Your task to perform on an android device: Show me productivity apps on the Play Store Image 0: 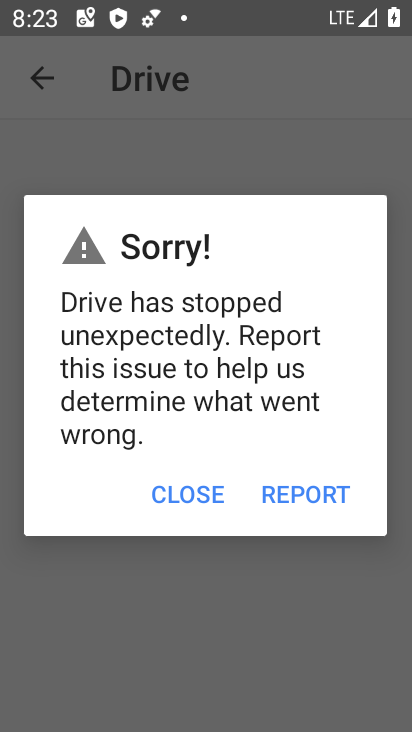
Step 0: press home button
Your task to perform on an android device: Show me productivity apps on the Play Store Image 1: 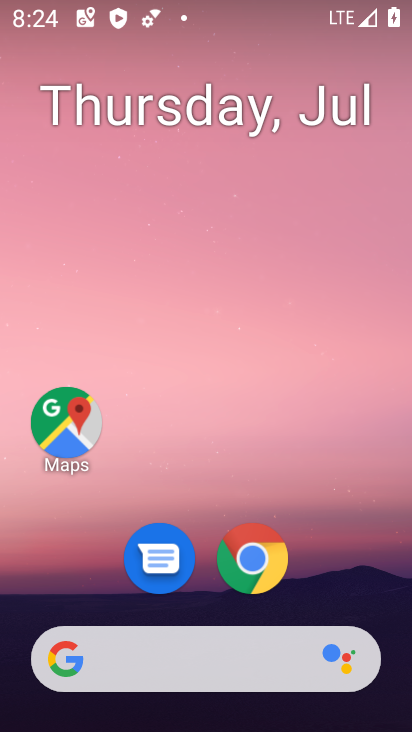
Step 1: drag from (231, 506) to (338, 55)
Your task to perform on an android device: Show me productivity apps on the Play Store Image 2: 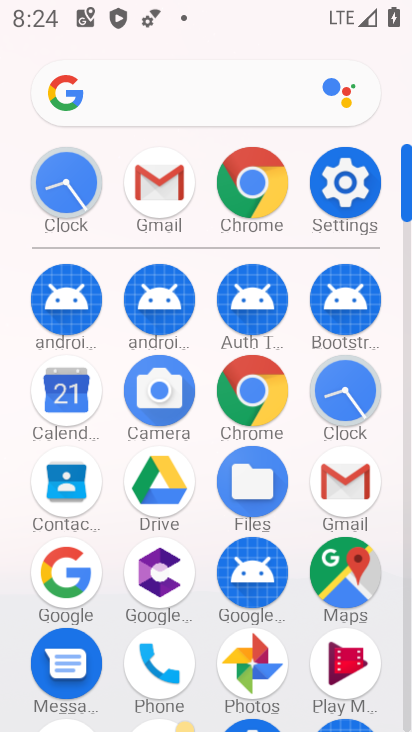
Step 2: drag from (288, 503) to (303, 172)
Your task to perform on an android device: Show me productivity apps on the Play Store Image 3: 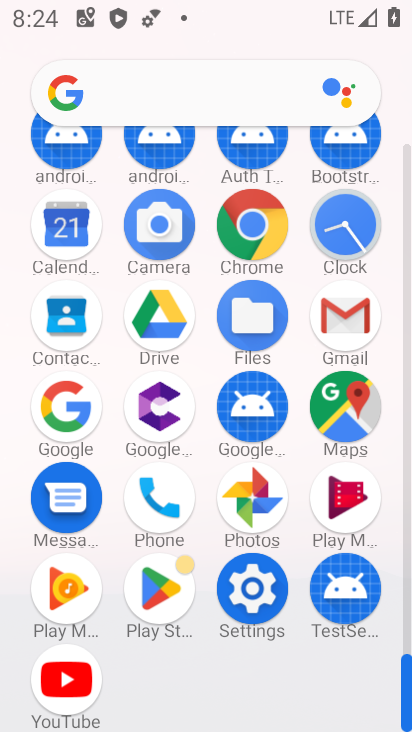
Step 3: click (157, 607)
Your task to perform on an android device: Show me productivity apps on the Play Store Image 4: 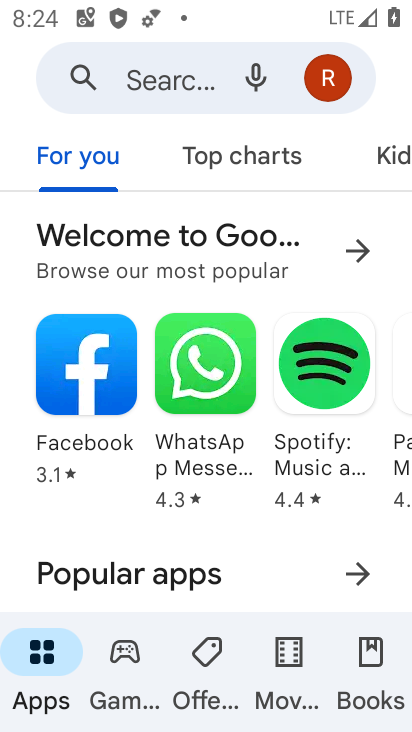
Step 4: click (207, 86)
Your task to perform on an android device: Show me productivity apps on the Play Store Image 5: 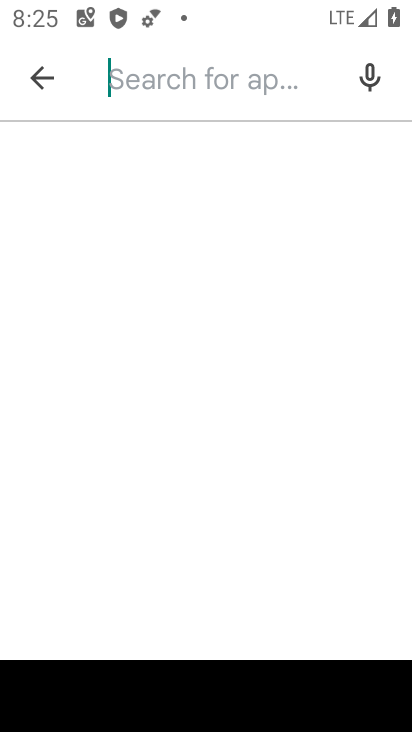
Step 5: type "productivity aaps"
Your task to perform on an android device: Show me productivity apps on the Play Store Image 6: 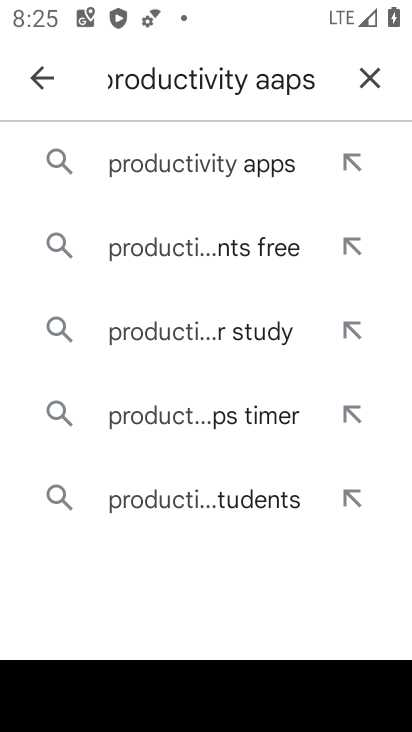
Step 6: click (216, 174)
Your task to perform on an android device: Show me productivity apps on the Play Store Image 7: 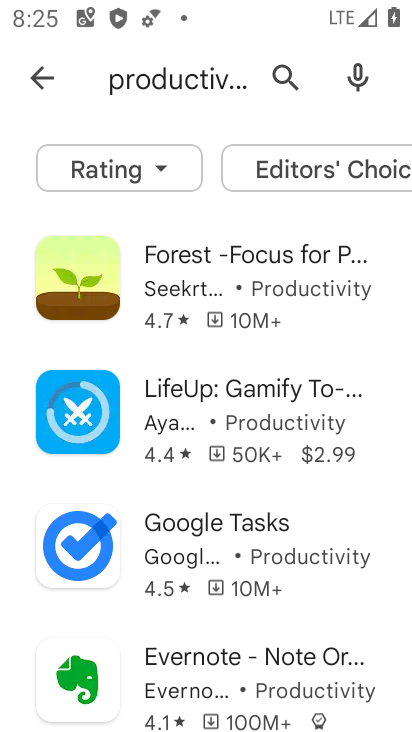
Step 7: task complete